Your task to perform on an android device: Clear all items from cart on costco.com. Add "logitech g910" to the cart on costco.com Image 0: 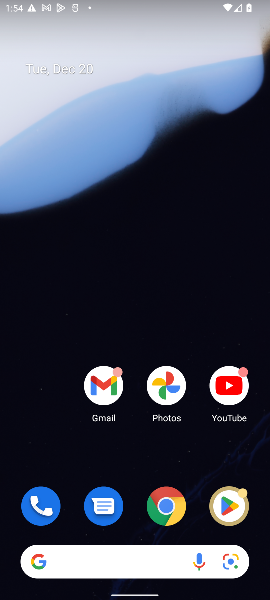
Step 0: click (172, 503)
Your task to perform on an android device: Clear all items from cart on costco.com. Add "logitech g910" to the cart on costco.com Image 1: 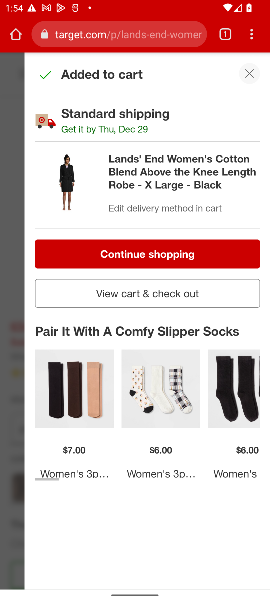
Step 1: click (151, 28)
Your task to perform on an android device: Clear all items from cart on costco.com. Add "logitech g910" to the cart on costco.com Image 2: 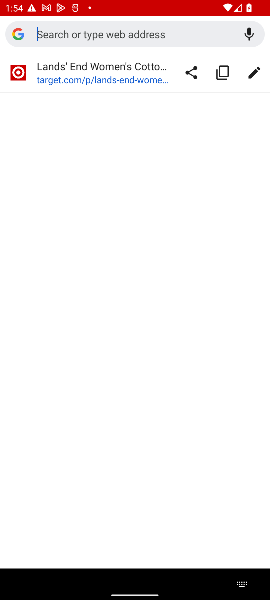
Step 2: type "COSTCO"
Your task to perform on an android device: Clear all items from cart on costco.com. Add "logitech g910" to the cart on costco.com Image 3: 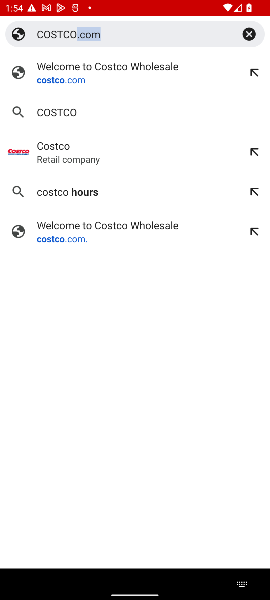
Step 3: click (95, 77)
Your task to perform on an android device: Clear all items from cart on costco.com. Add "logitech g910" to the cart on costco.com Image 4: 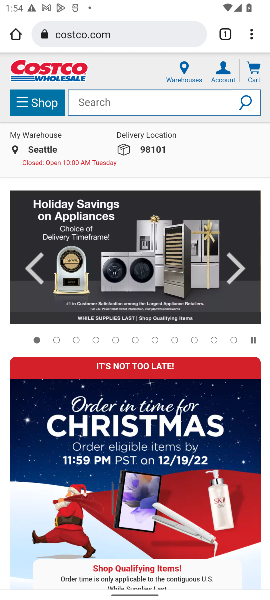
Step 4: click (212, 107)
Your task to perform on an android device: Clear all items from cart on costco.com. Add "logitech g910" to the cart on costco.com Image 5: 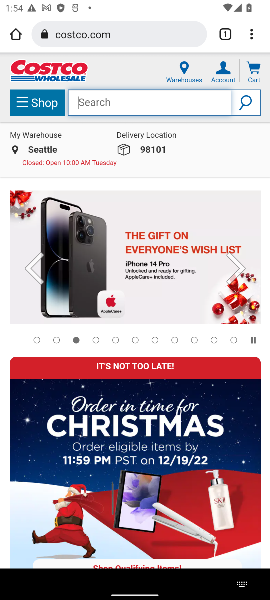
Step 5: type "LOGITECH G910"
Your task to perform on an android device: Clear all items from cart on costco.com. Add "logitech g910" to the cart on costco.com Image 6: 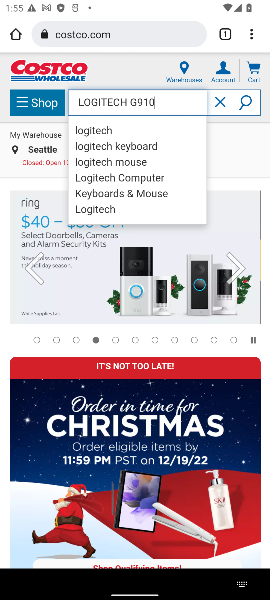
Step 6: click (108, 134)
Your task to perform on an android device: Clear all items from cart on costco.com. Add "logitech g910" to the cart on costco.com Image 7: 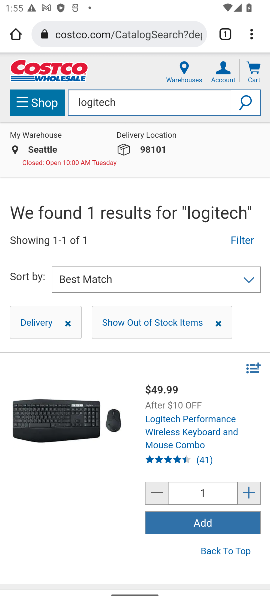
Step 7: click (213, 523)
Your task to perform on an android device: Clear all items from cart on costco.com. Add "logitech g910" to the cart on costco.com Image 8: 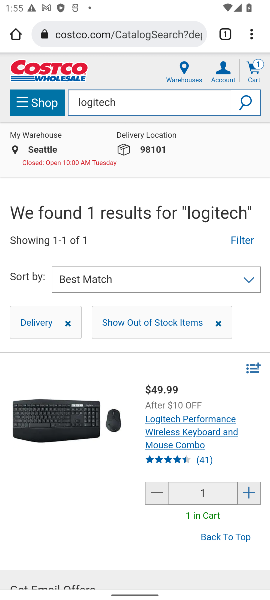
Step 8: task complete